Your task to perform on an android device: Show me the alarms in the clock app Image 0: 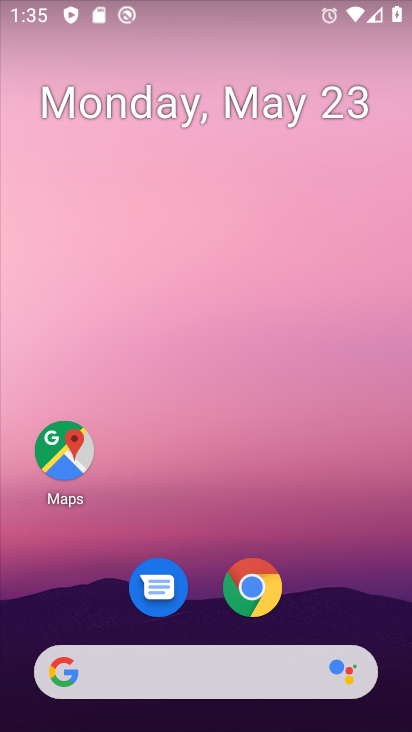
Step 0: drag from (349, 600) to (329, 440)
Your task to perform on an android device: Show me the alarms in the clock app Image 1: 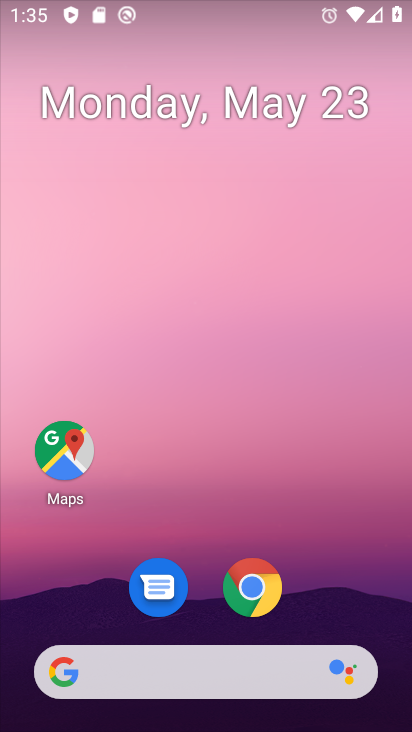
Step 1: drag from (326, 590) to (260, 211)
Your task to perform on an android device: Show me the alarms in the clock app Image 2: 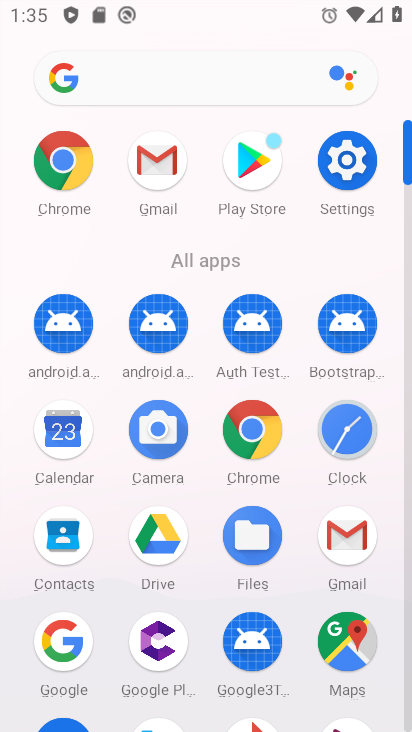
Step 2: click (331, 173)
Your task to perform on an android device: Show me the alarms in the clock app Image 3: 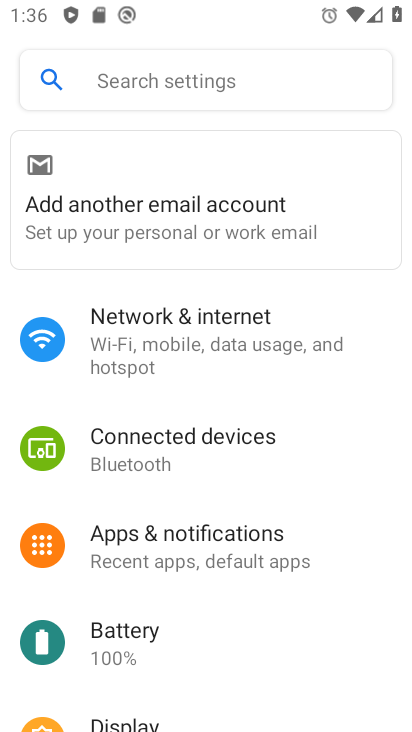
Step 3: press home button
Your task to perform on an android device: Show me the alarms in the clock app Image 4: 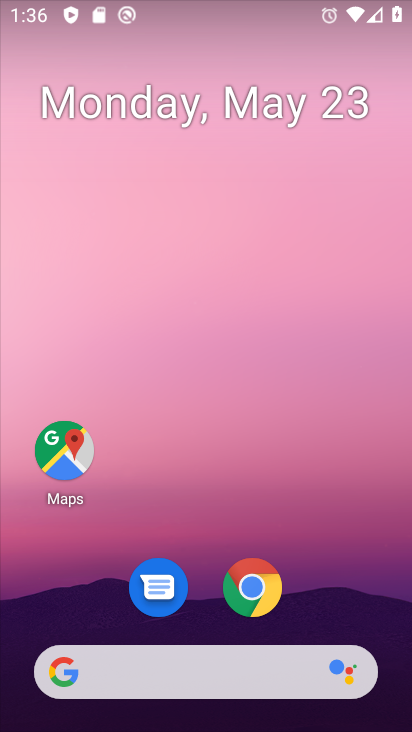
Step 4: drag from (404, 620) to (307, 155)
Your task to perform on an android device: Show me the alarms in the clock app Image 5: 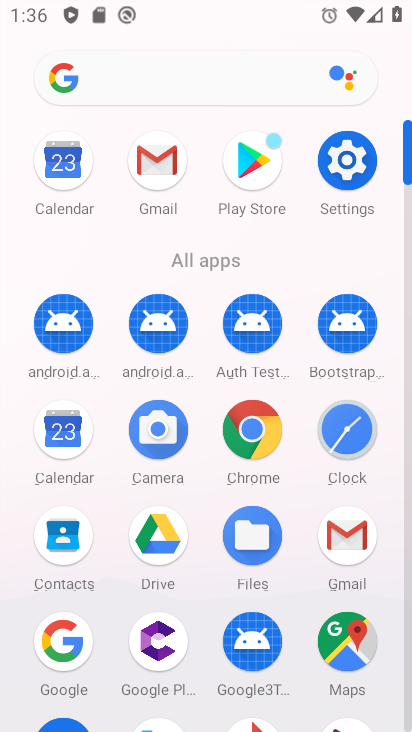
Step 5: click (341, 426)
Your task to perform on an android device: Show me the alarms in the clock app Image 6: 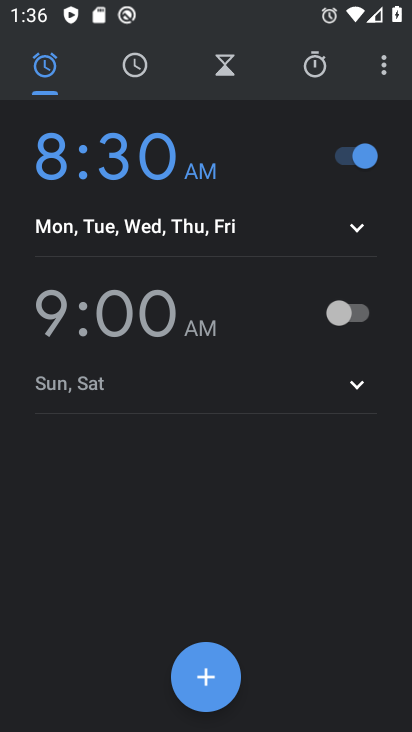
Step 6: task complete